Your task to perform on an android device: Open privacy settings Image 0: 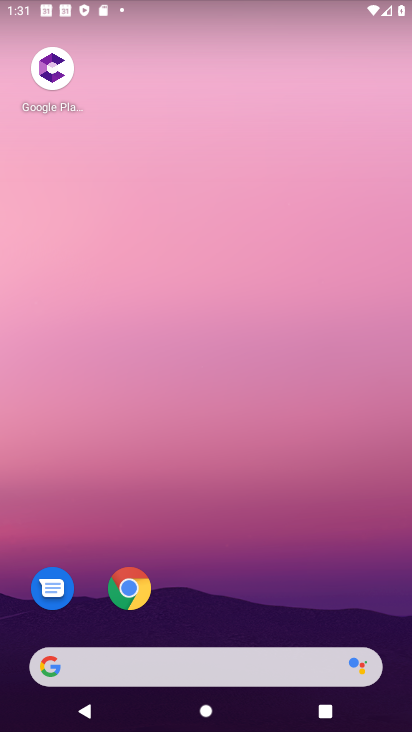
Step 0: drag from (384, 554) to (214, 79)
Your task to perform on an android device: Open privacy settings Image 1: 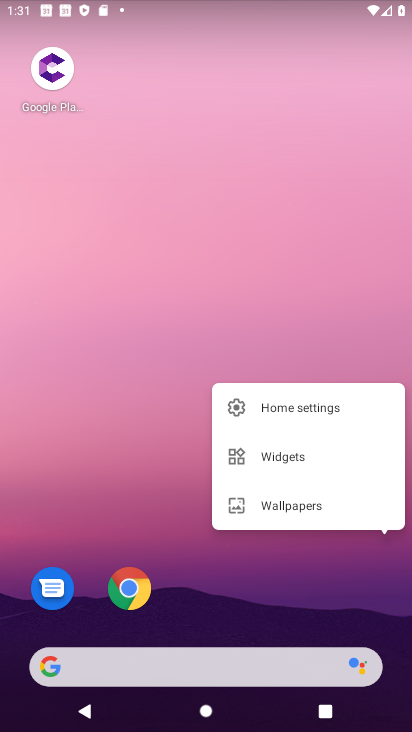
Step 1: click (134, 538)
Your task to perform on an android device: Open privacy settings Image 2: 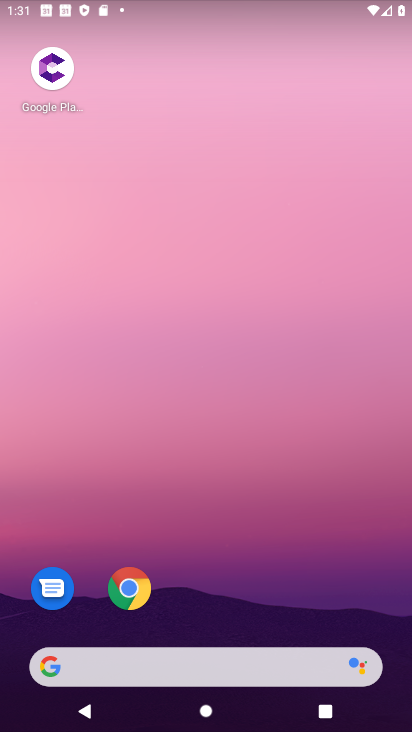
Step 2: drag from (249, 602) to (158, 229)
Your task to perform on an android device: Open privacy settings Image 3: 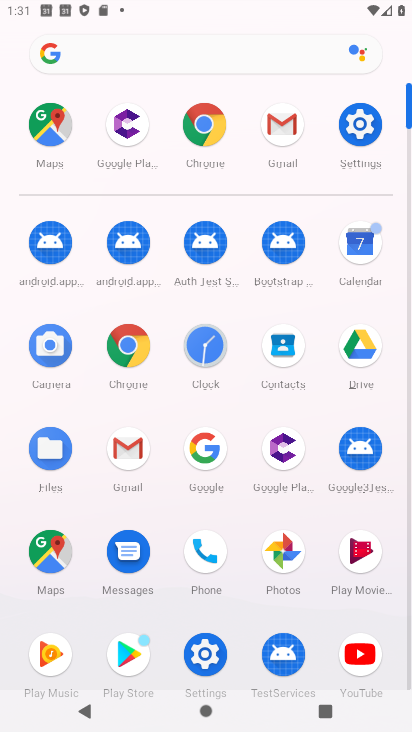
Step 3: click (355, 141)
Your task to perform on an android device: Open privacy settings Image 4: 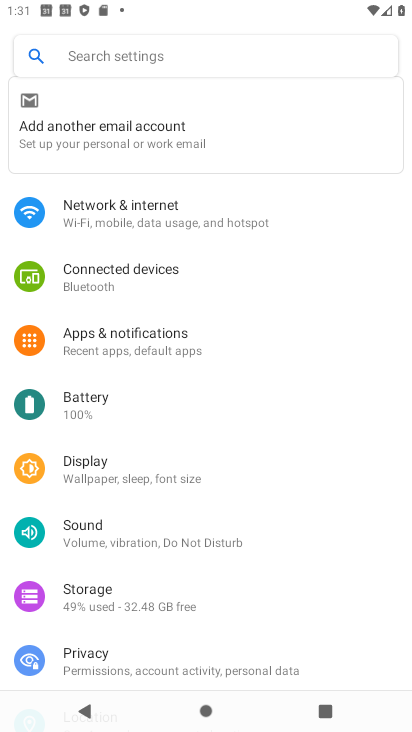
Step 4: click (188, 638)
Your task to perform on an android device: Open privacy settings Image 5: 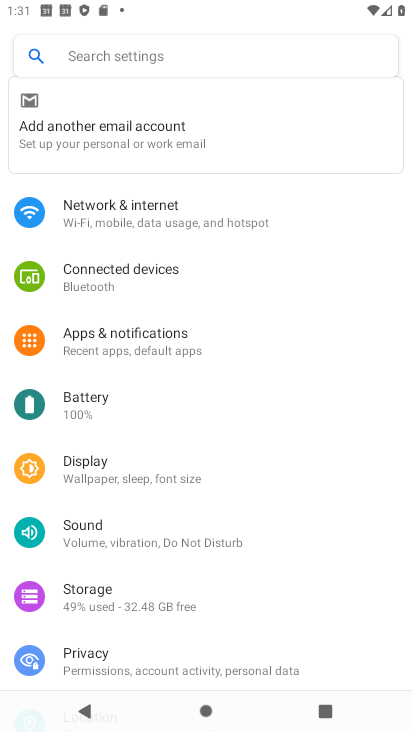
Step 5: click (188, 638)
Your task to perform on an android device: Open privacy settings Image 6: 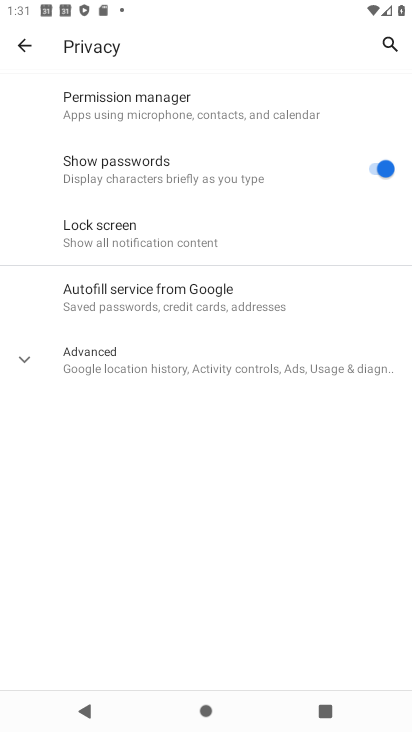
Step 6: task complete